Your task to perform on an android device: Go to calendar. Show me events next week Image 0: 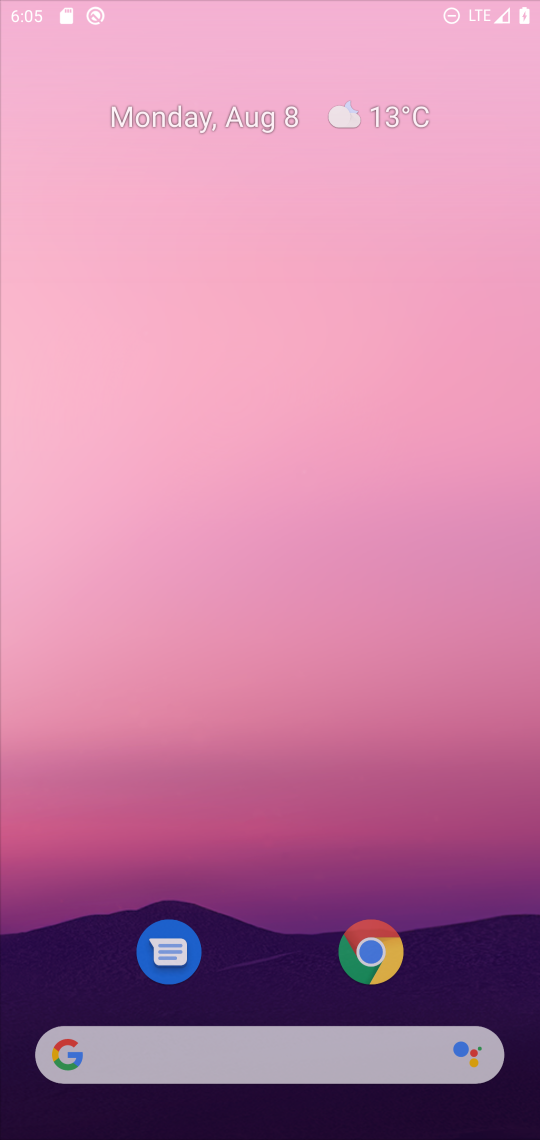
Step 0: press home button
Your task to perform on an android device: Go to calendar. Show me events next week Image 1: 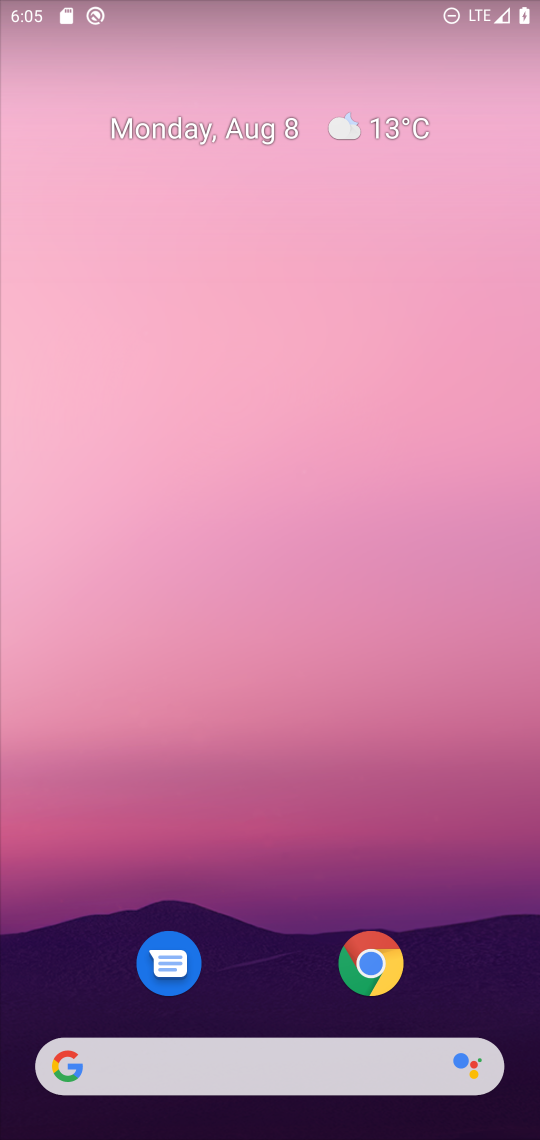
Step 1: drag from (242, 681) to (300, 233)
Your task to perform on an android device: Go to calendar. Show me events next week Image 2: 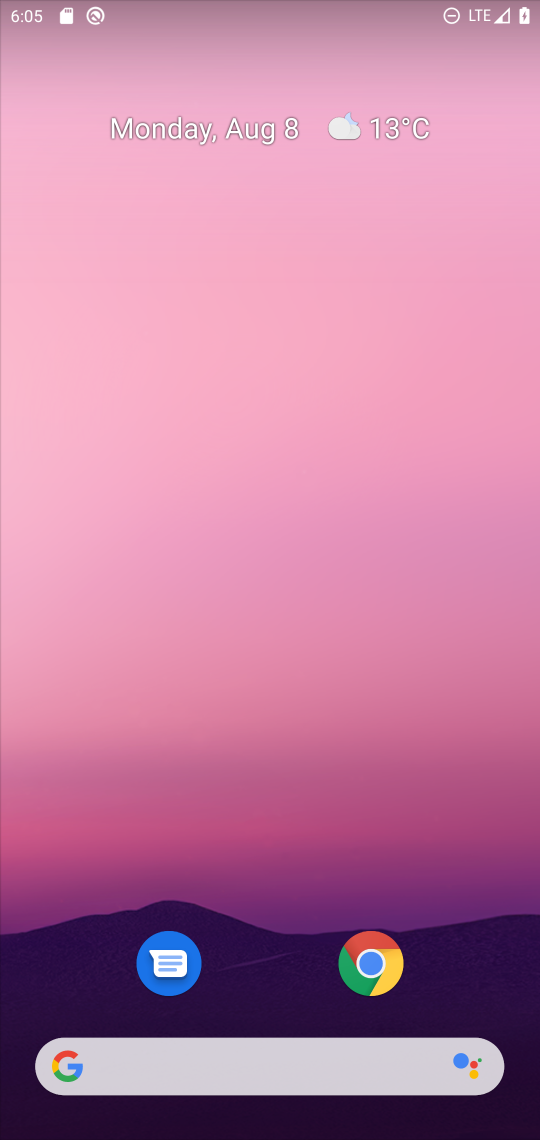
Step 2: drag from (275, 947) to (264, 359)
Your task to perform on an android device: Go to calendar. Show me events next week Image 3: 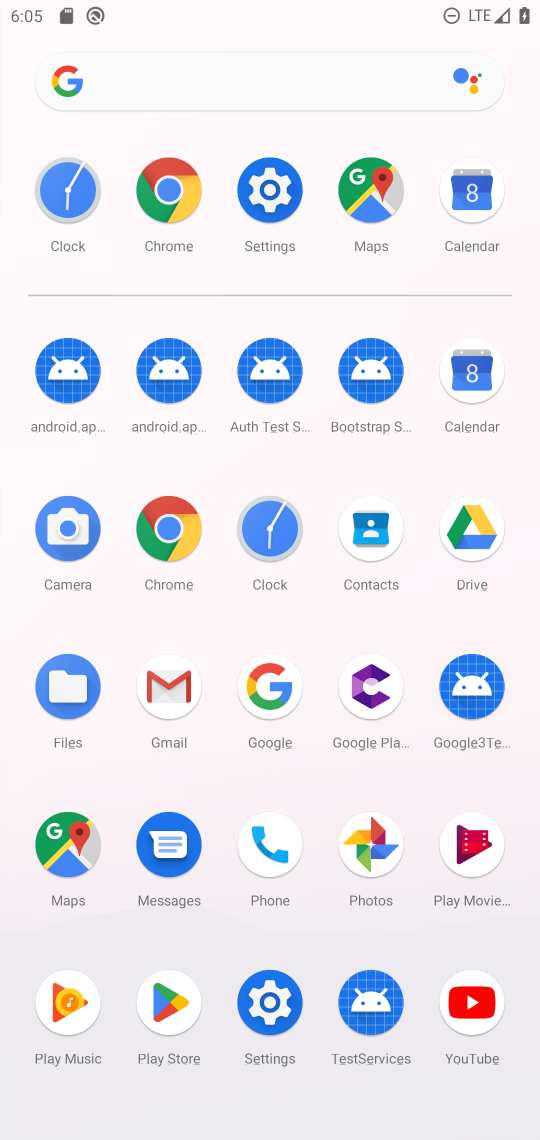
Step 3: click (471, 363)
Your task to perform on an android device: Go to calendar. Show me events next week Image 4: 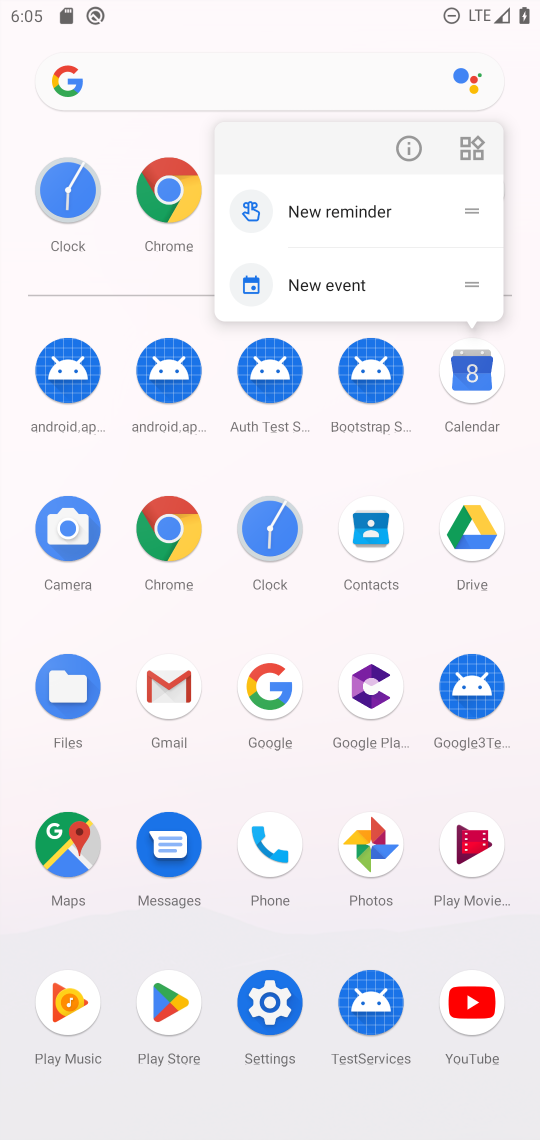
Step 4: click (471, 363)
Your task to perform on an android device: Go to calendar. Show me events next week Image 5: 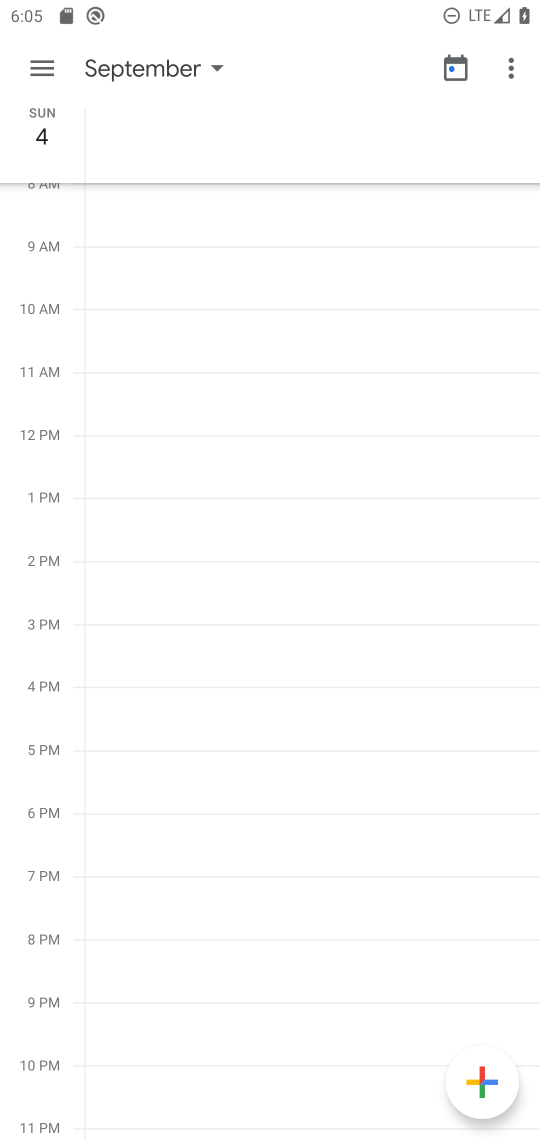
Step 5: click (110, 61)
Your task to perform on an android device: Go to calendar. Show me events next week Image 6: 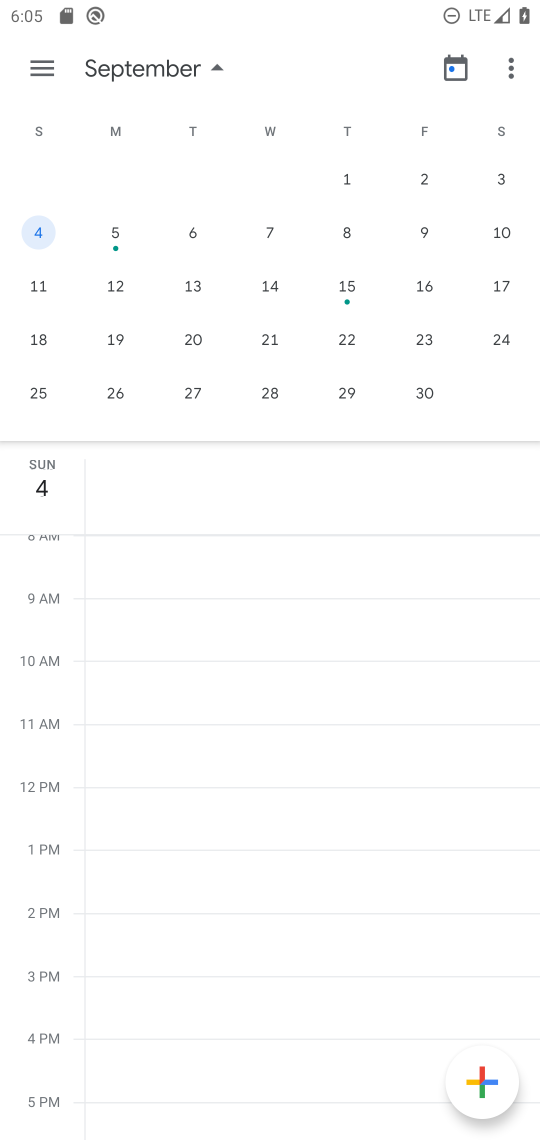
Step 6: click (28, 61)
Your task to perform on an android device: Go to calendar. Show me events next week Image 7: 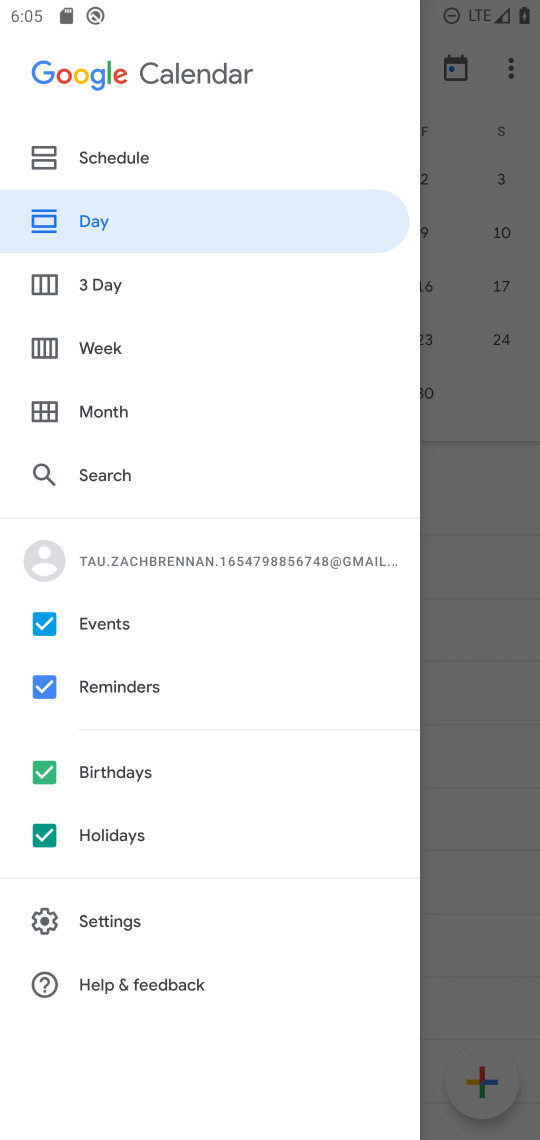
Step 7: click (49, 160)
Your task to perform on an android device: Go to calendar. Show me events next week Image 8: 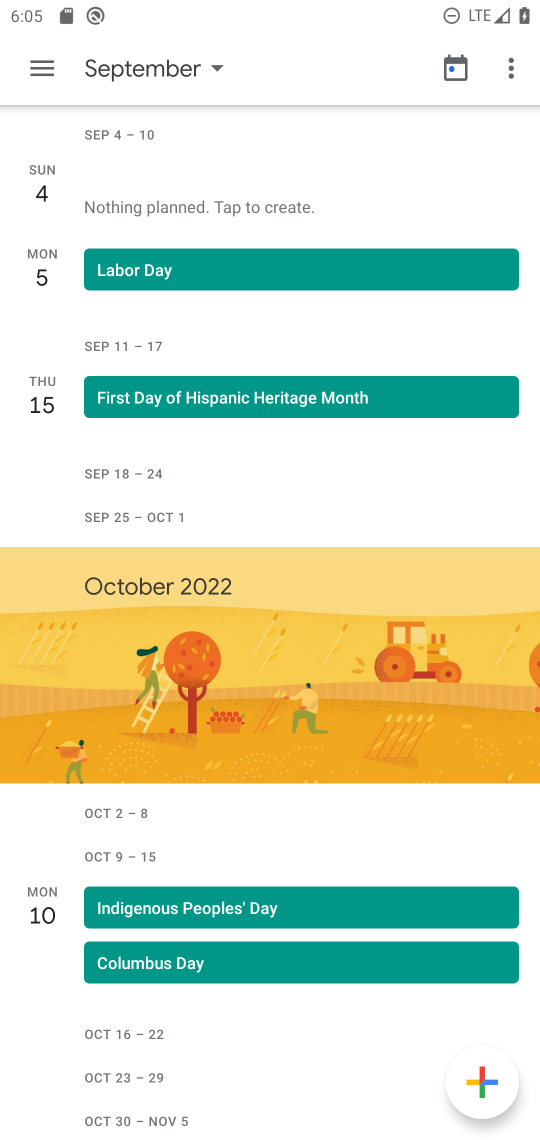
Step 8: click (128, 77)
Your task to perform on an android device: Go to calendar. Show me events next week Image 9: 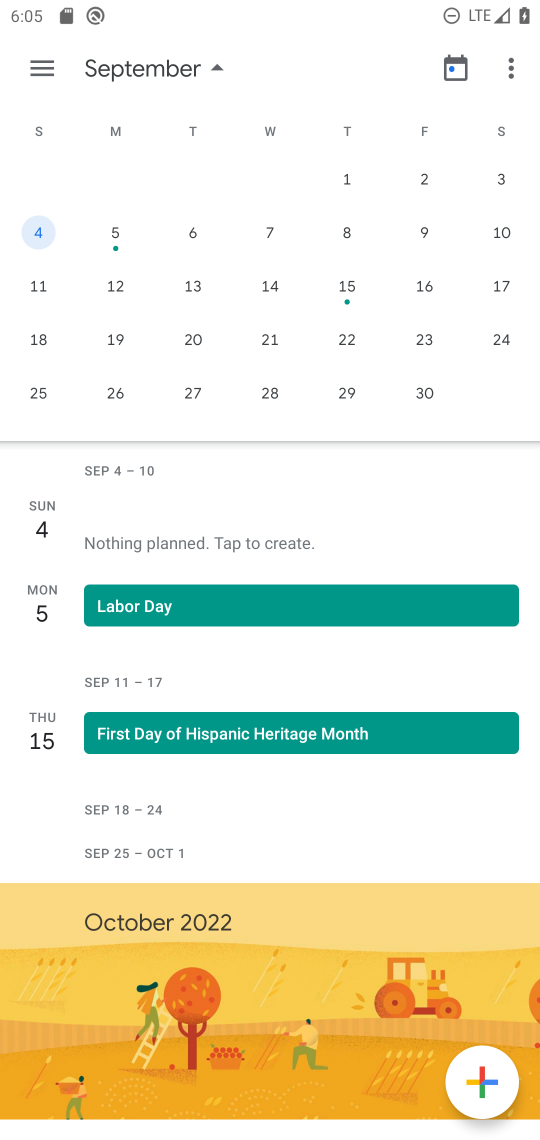
Step 9: drag from (67, 252) to (514, 231)
Your task to perform on an android device: Go to calendar. Show me events next week Image 10: 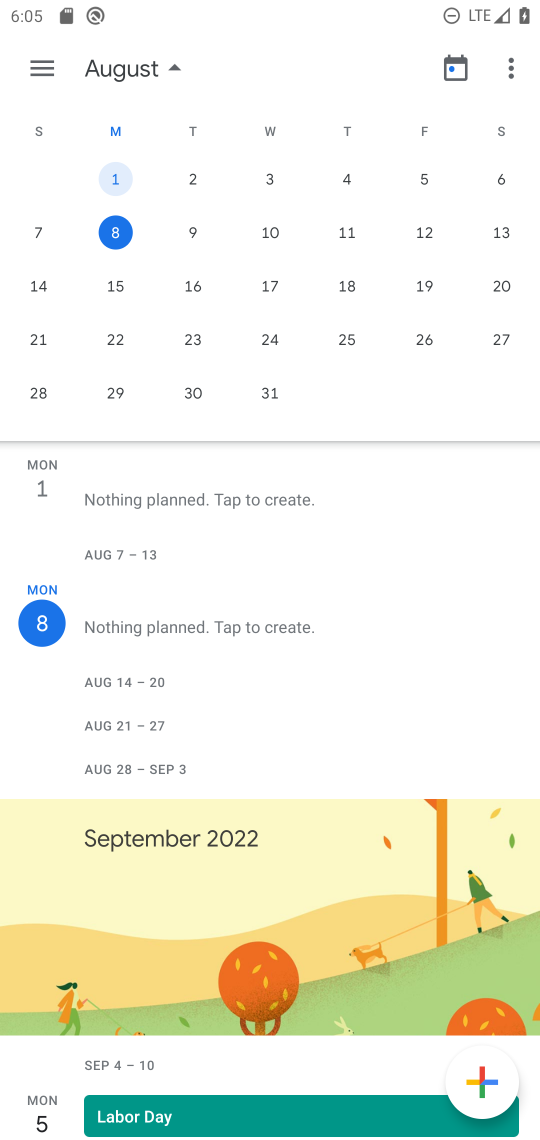
Step 10: click (123, 222)
Your task to perform on an android device: Go to calendar. Show me events next week Image 11: 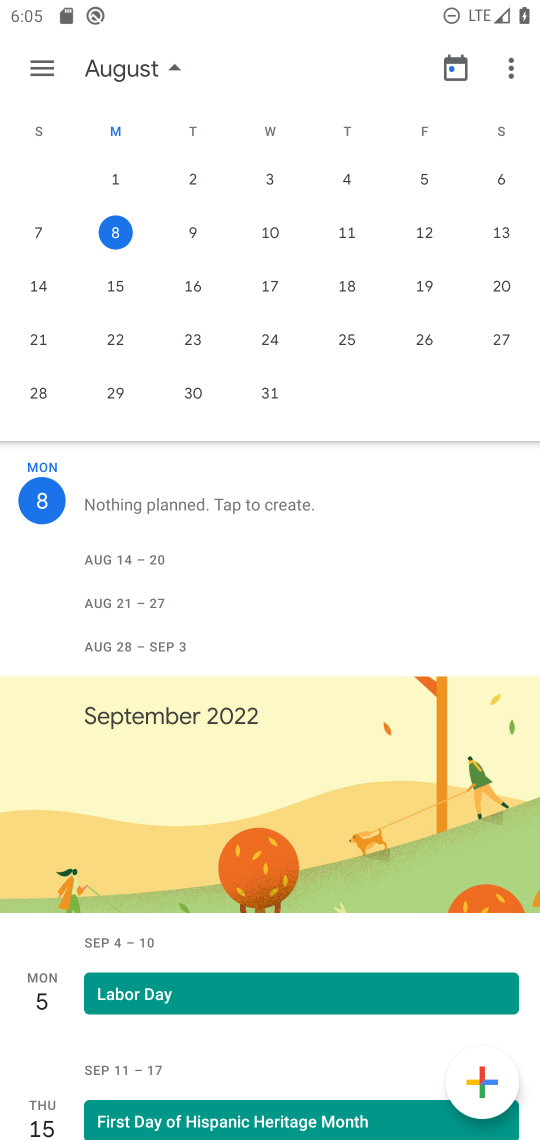
Step 11: click (45, 285)
Your task to perform on an android device: Go to calendar. Show me events next week Image 12: 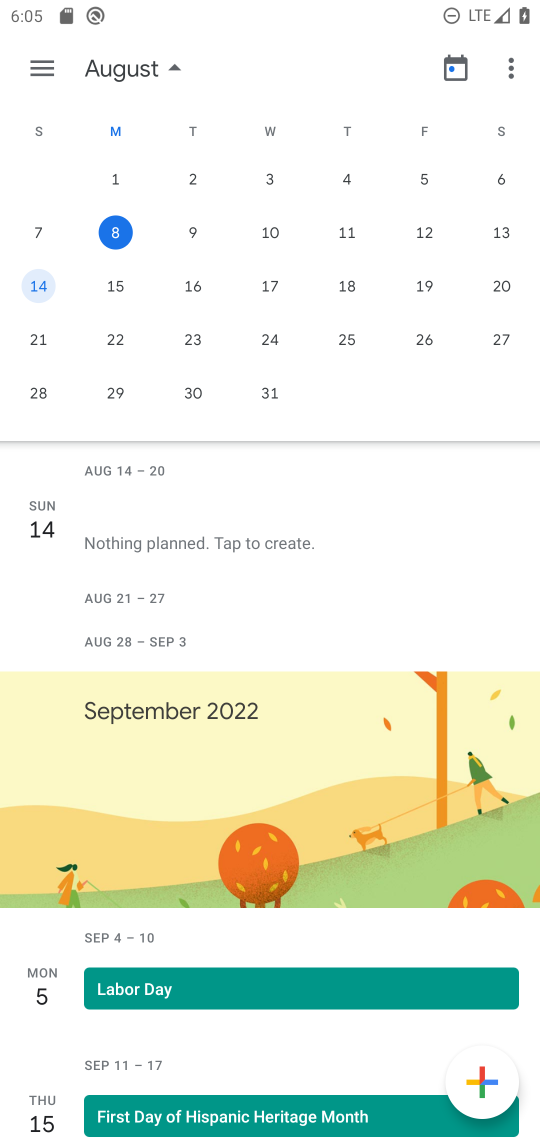
Step 12: click (116, 290)
Your task to perform on an android device: Go to calendar. Show me events next week Image 13: 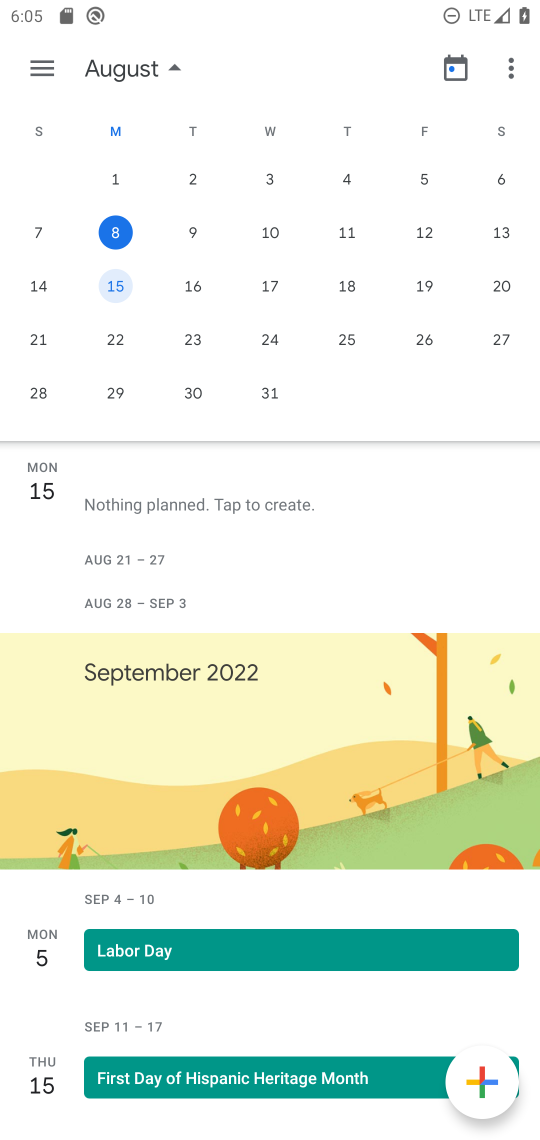
Step 13: click (178, 290)
Your task to perform on an android device: Go to calendar. Show me events next week Image 14: 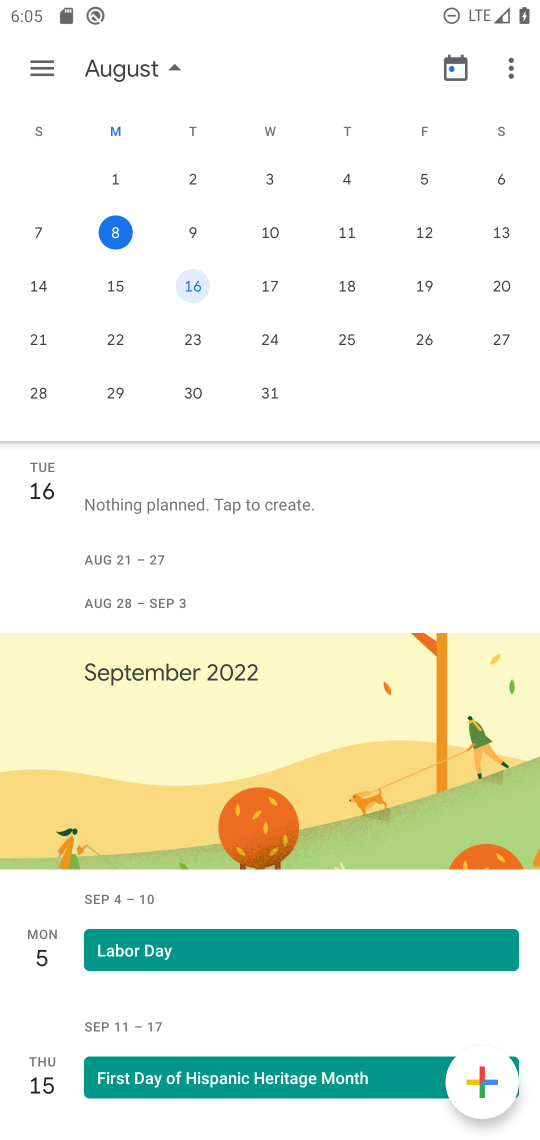
Step 14: click (313, 290)
Your task to perform on an android device: Go to calendar. Show me events next week Image 15: 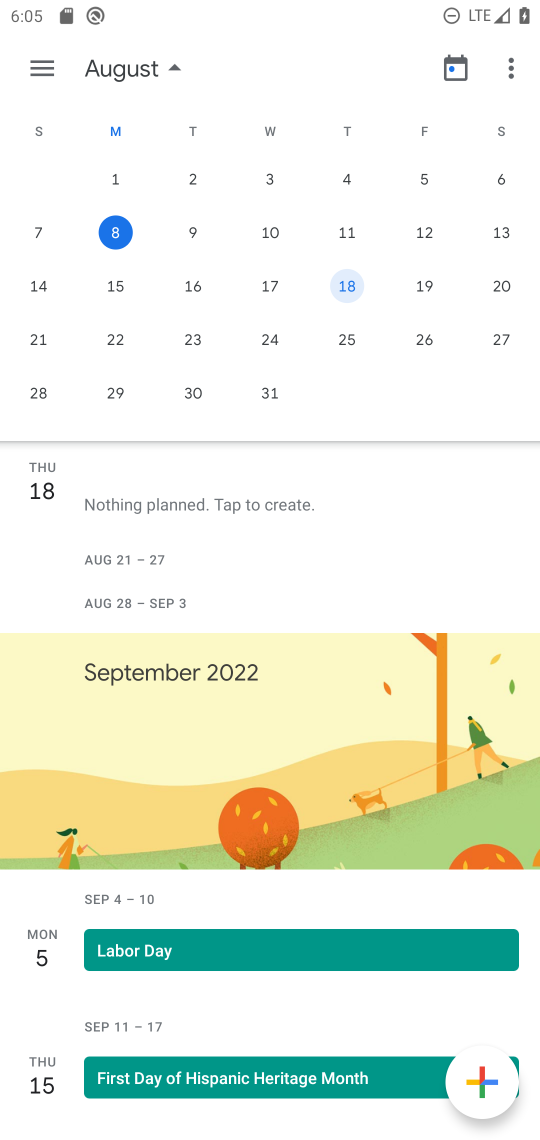
Step 15: click (259, 286)
Your task to perform on an android device: Go to calendar. Show me events next week Image 16: 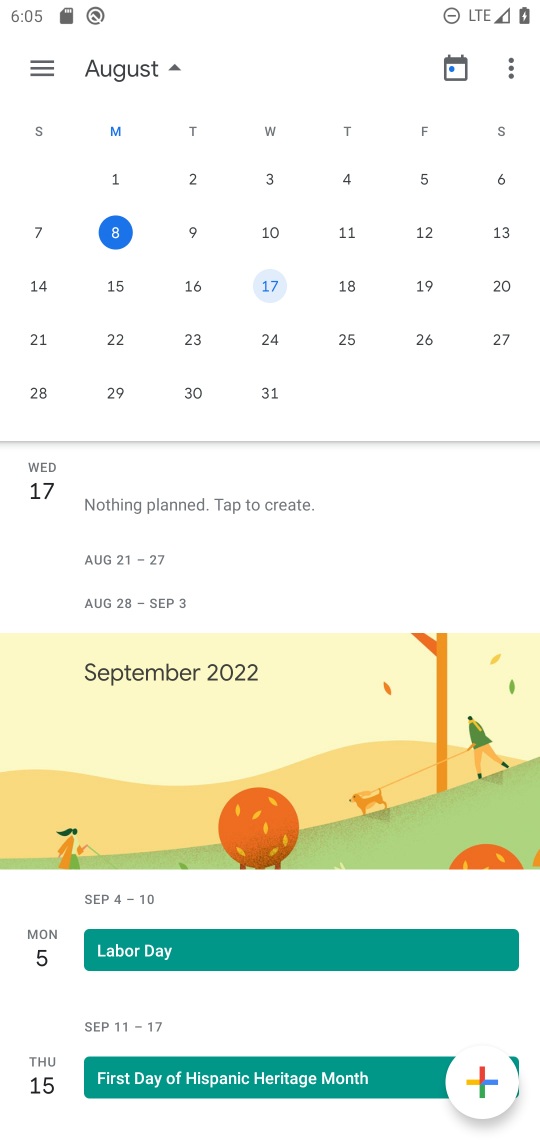
Step 16: click (433, 288)
Your task to perform on an android device: Go to calendar. Show me events next week Image 17: 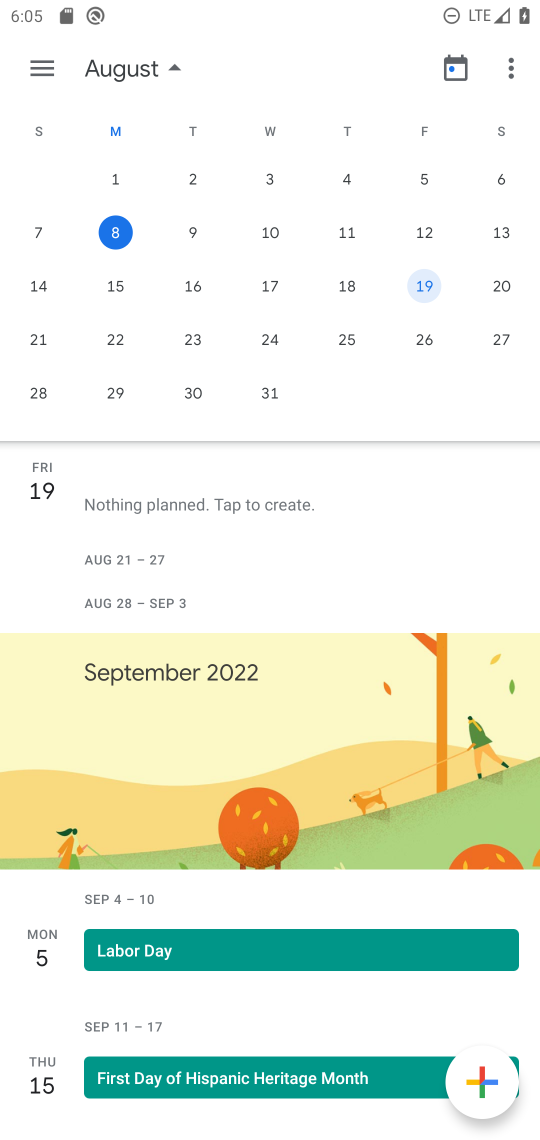
Step 17: click (520, 288)
Your task to perform on an android device: Go to calendar. Show me events next week Image 18: 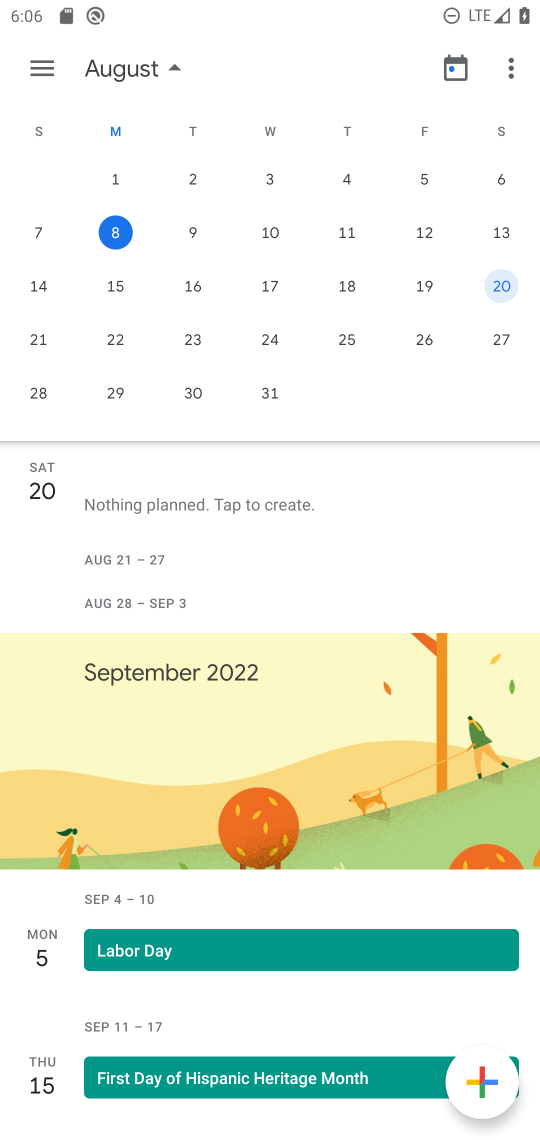
Step 18: task complete